Your task to perform on an android device: show emergency info Image 0: 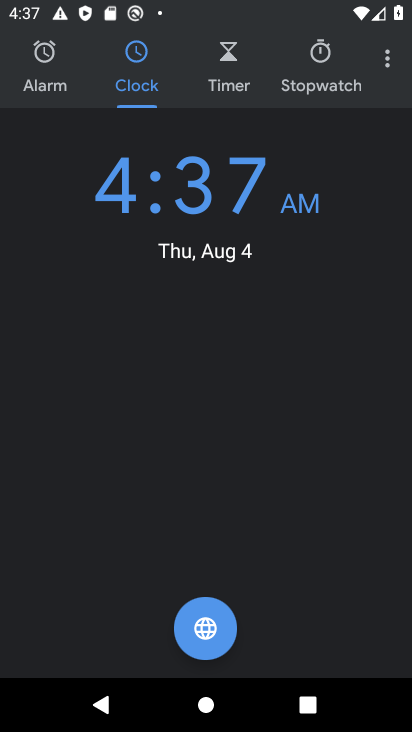
Step 0: press back button
Your task to perform on an android device: show emergency info Image 1: 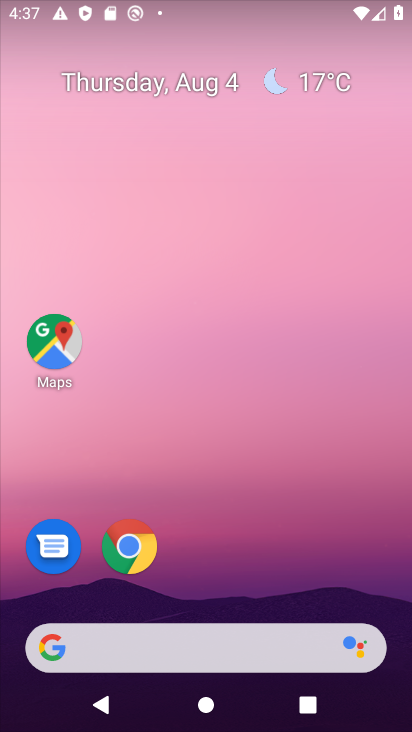
Step 1: drag from (224, 37) to (267, 25)
Your task to perform on an android device: show emergency info Image 2: 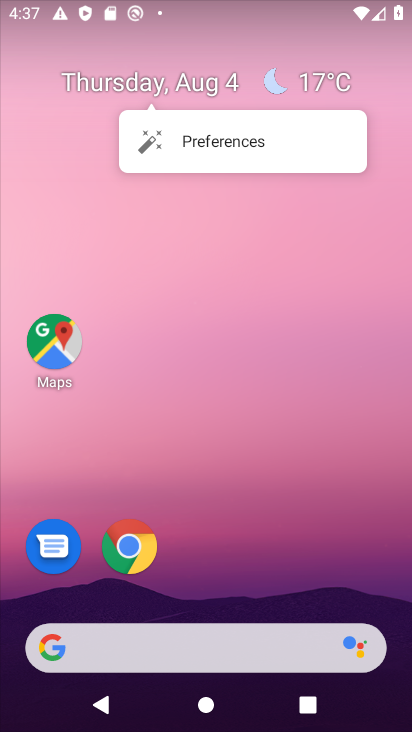
Step 2: click (200, 494)
Your task to perform on an android device: show emergency info Image 3: 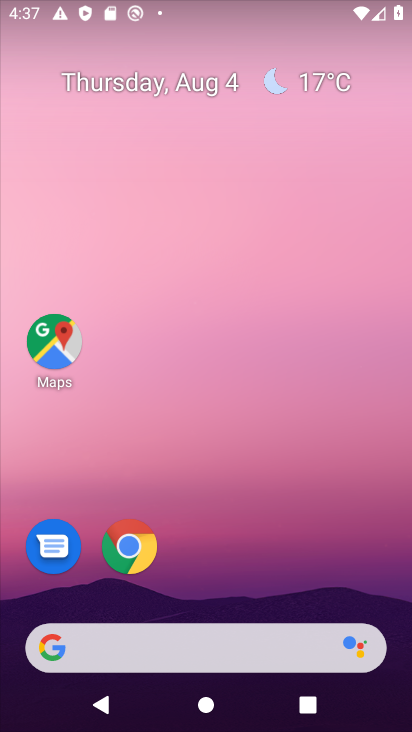
Step 3: drag from (171, 529) to (257, 77)
Your task to perform on an android device: show emergency info Image 4: 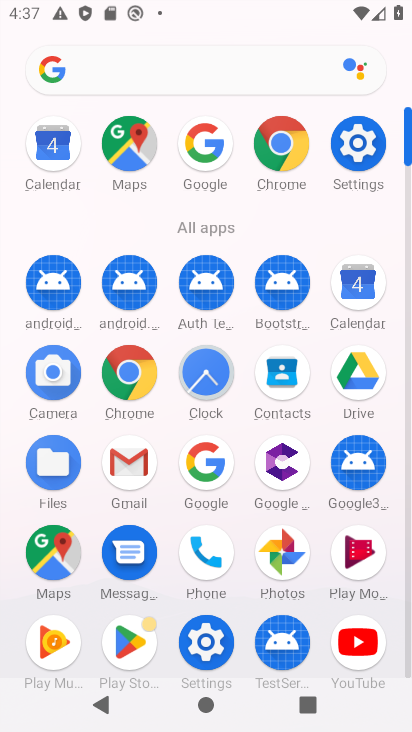
Step 4: click (357, 144)
Your task to perform on an android device: show emergency info Image 5: 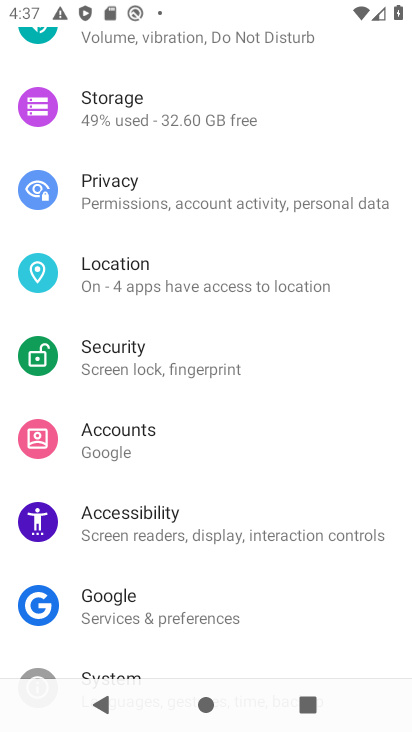
Step 5: drag from (163, 407) to (207, 71)
Your task to perform on an android device: show emergency info Image 6: 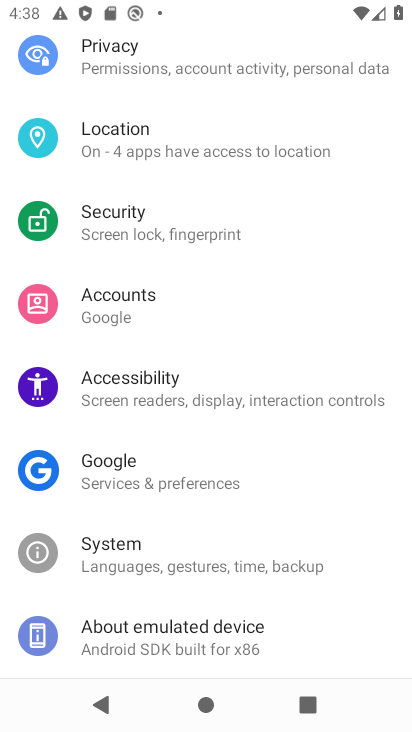
Step 6: click (162, 649)
Your task to perform on an android device: show emergency info Image 7: 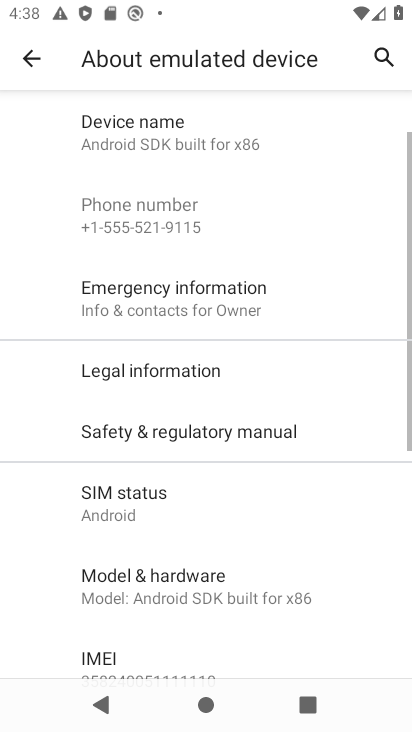
Step 7: click (176, 281)
Your task to perform on an android device: show emergency info Image 8: 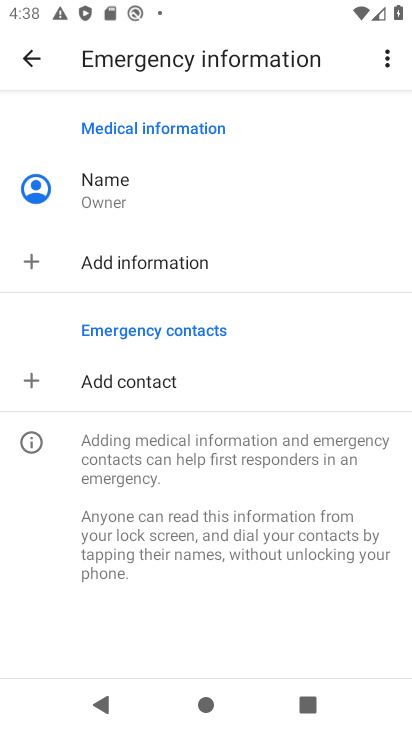
Step 8: task complete